Your task to perform on an android device: turn on showing notifications on the lock screen Image 0: 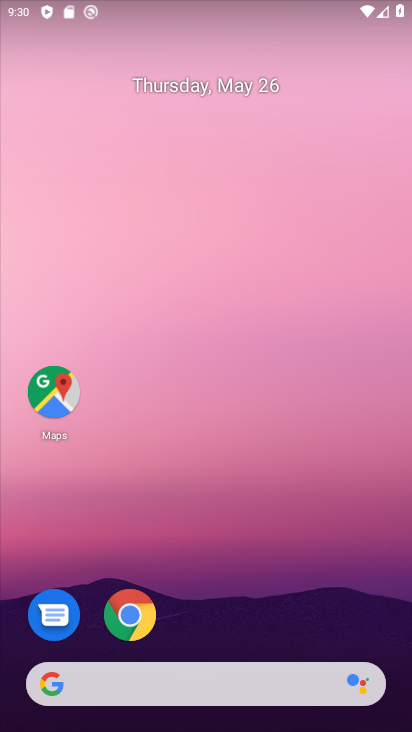
Step 0: drag from (123, 723) to (62, 79)
Your task to perform on an android device: turn on showing notifications on the lock screen Image 1: 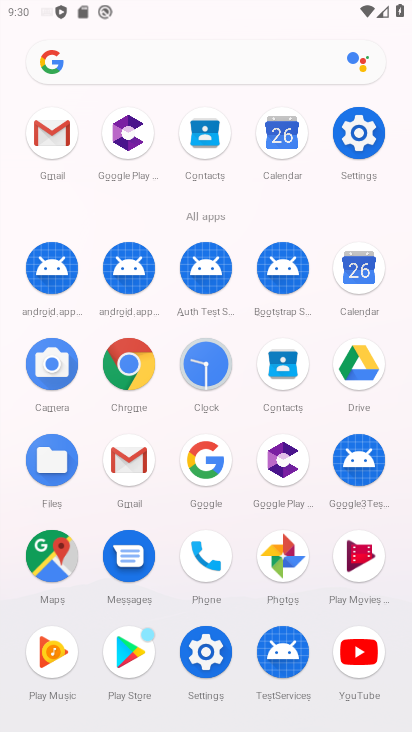
Step 1: click (360, 132)
Your task to perform on an android device: turn on showing notifications on the lock screen Image 2: 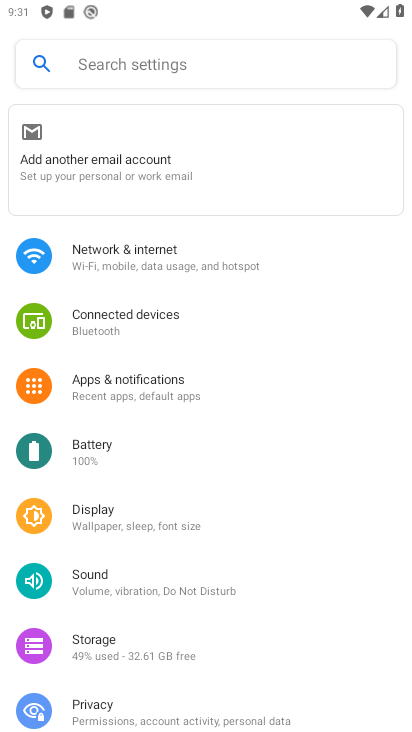
Step 2: click (203, 398)
Your task to perform on an android device: turn on showing notifications on the lock screen Image 3: 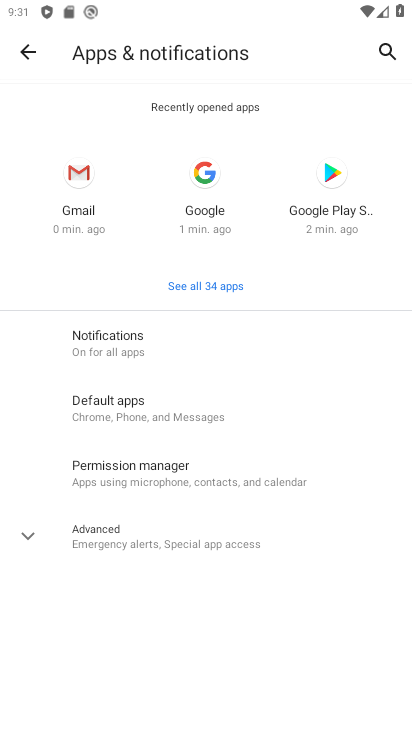
Step 3: click (145, 344)
Your task to perform on an android device: turn on showing notifications on the lock screen Image 4: 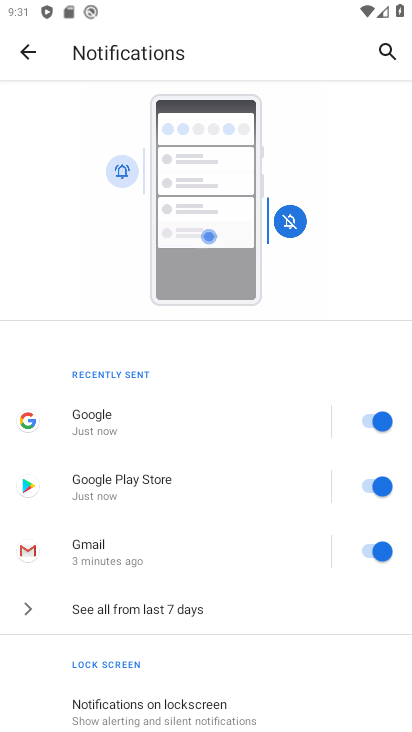
Step 4: click (242, 704)
Your task to perform on an android device: turn on showing notifications on the lock screen Image 5: 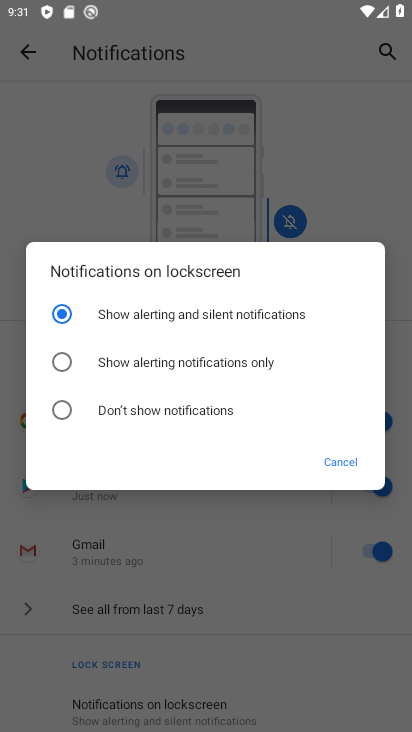
Step 5: task complete